Your task to perform on an android device: change keyboard looks Image 0: 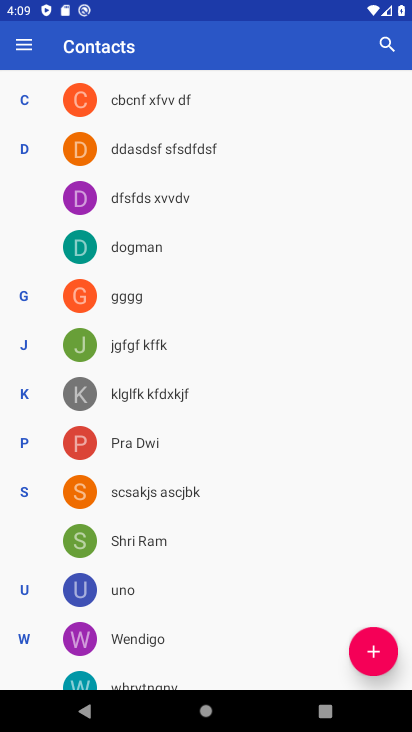
Step 0: press back button
Your task to perform on an android device: change keyboard looks Image 1: 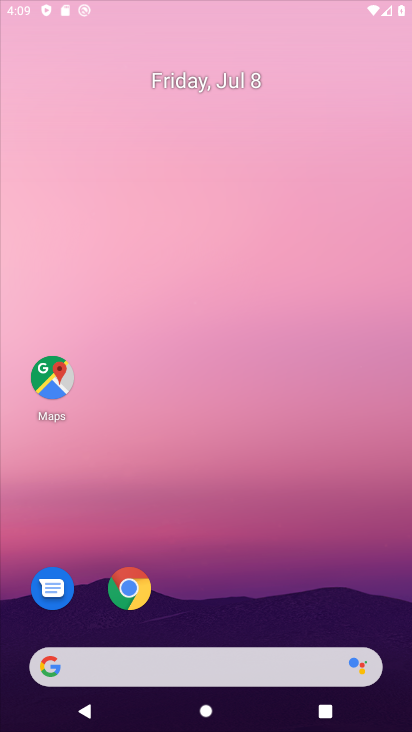
Step 1: press back button
Your task to perform on an android device: change keyboard looks Image 2: 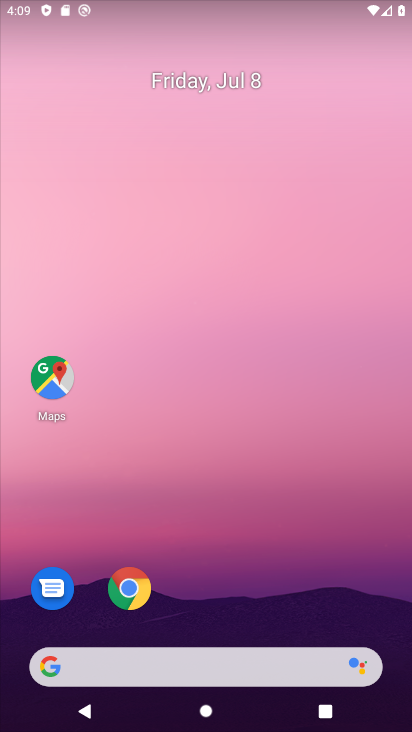
Step 2: click (82, 82)
Your task to perform on an android device: change keyboard looks Image 3: 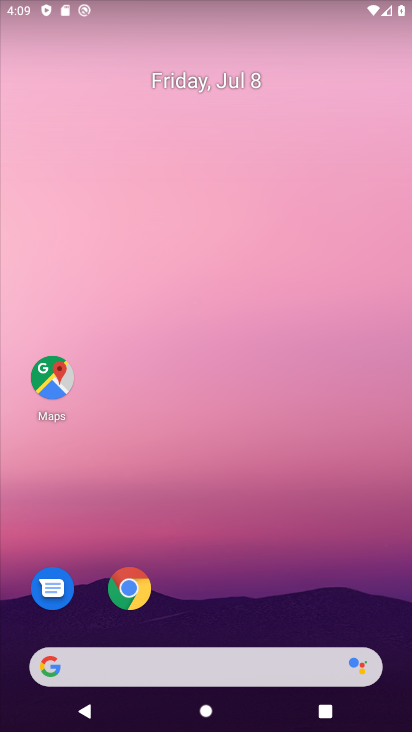
Step 3: drag from (248, 633) to (68, 5)
Your task to perform on an android device: change keyboard looks Image 4: 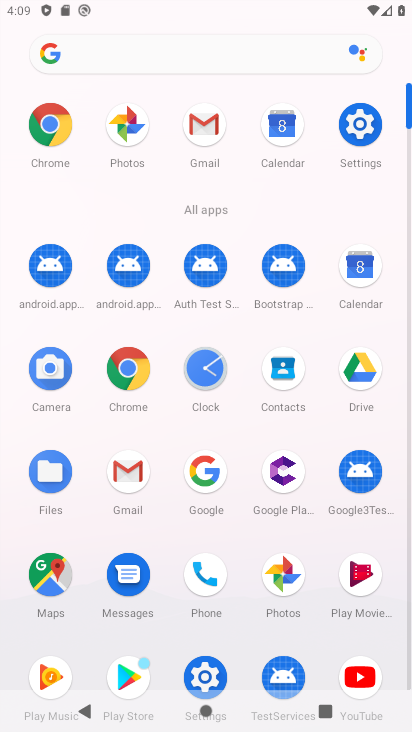
Step 4: click (355, 120)
Your task to perform on an android device: change keyboard looks Image 5: 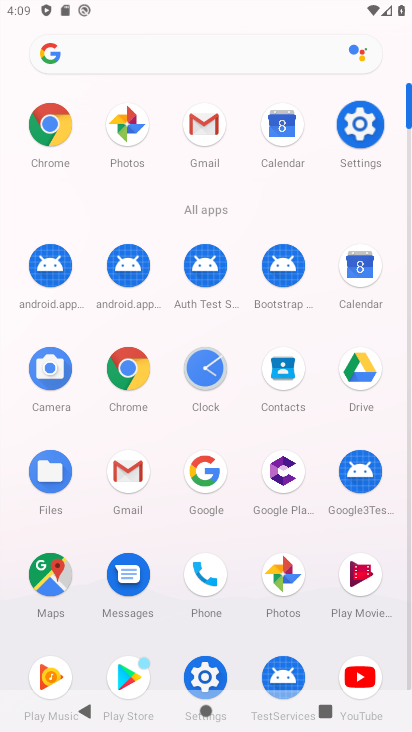
Step 5: click (358, 123)
Your task to perform on an android device: change keyboard looks Image 6: 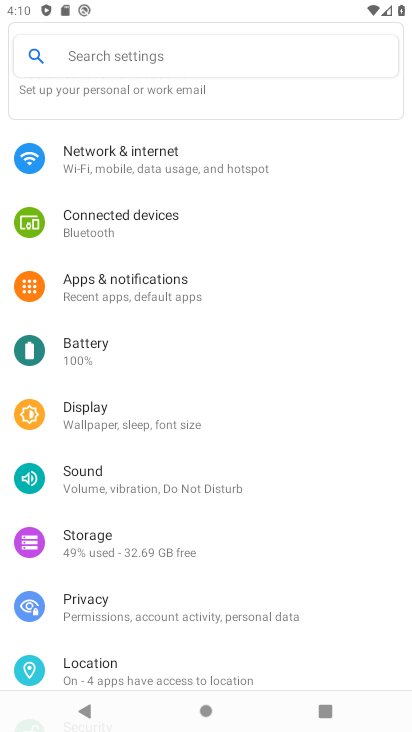
Step 6: press back button
Your task to perform on an android device: change keyboard looks Image 7: 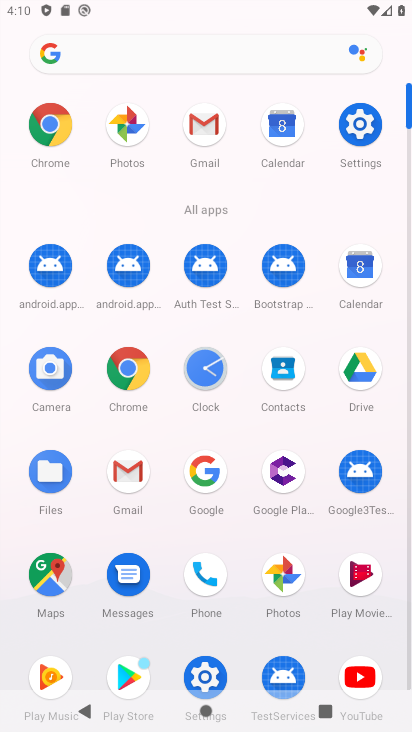
Step 7: click (205, 670)
Your task to perform on an android device: change keyboard looks Image 8: 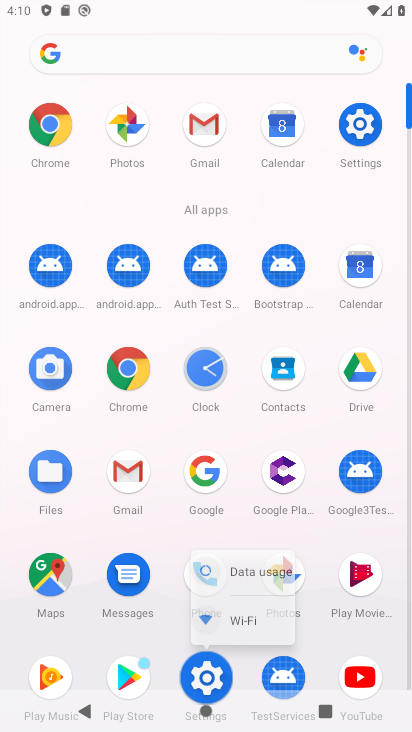
Step 8: click (228, 658)
Your task to perform on an android device: change keyboard looks Image 9: 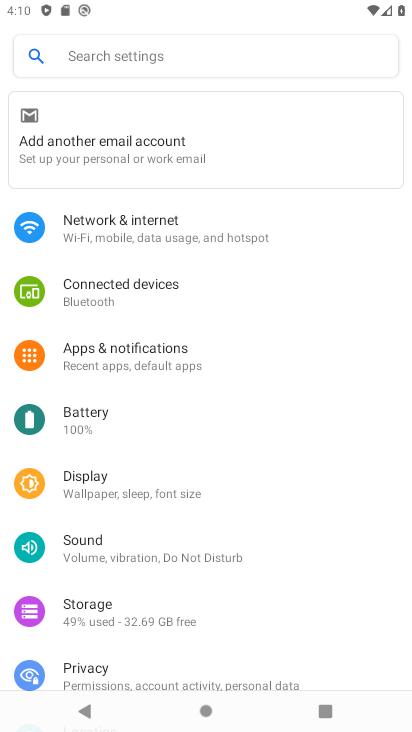
Step 9: drag from (146, 576) to (75, 89)
Your task to perform on an android device: change keyboard looks Image 10: 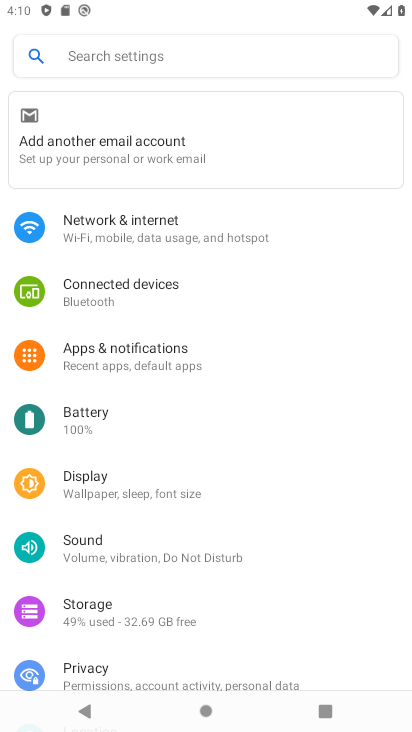
Step 10: drag from (178, 521) to (120, 42)
Your task to perform on an android device: change keyboard looks Image 11: 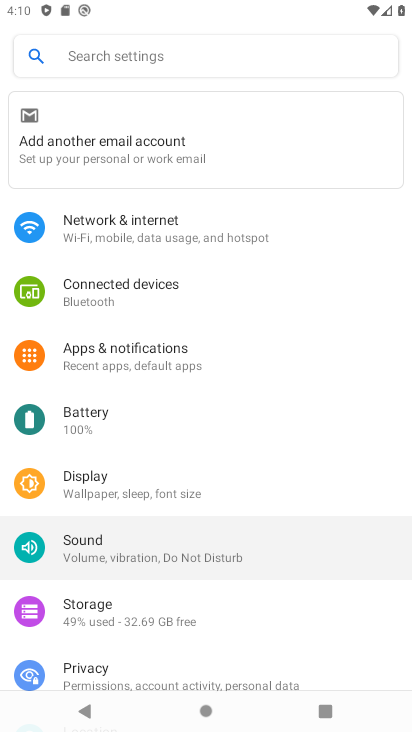
Step 11: drag from (214, 319) to (214, 105)
Your task to perform on an android device: change keyboard looks Image 12: 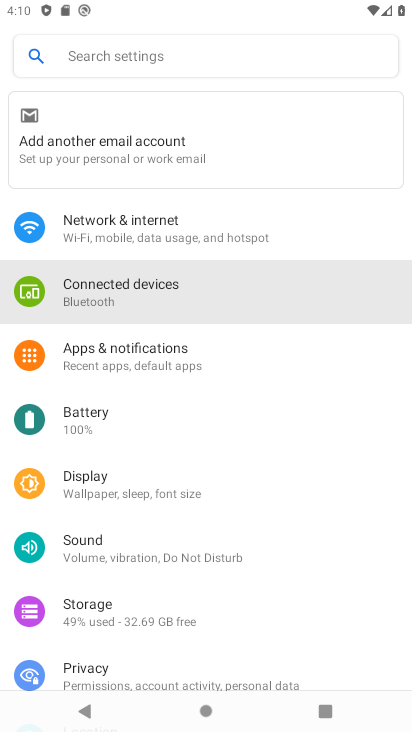
Step 12: click (189, 215)
Your task to perform on an android device: change keyboard looks Image 13: 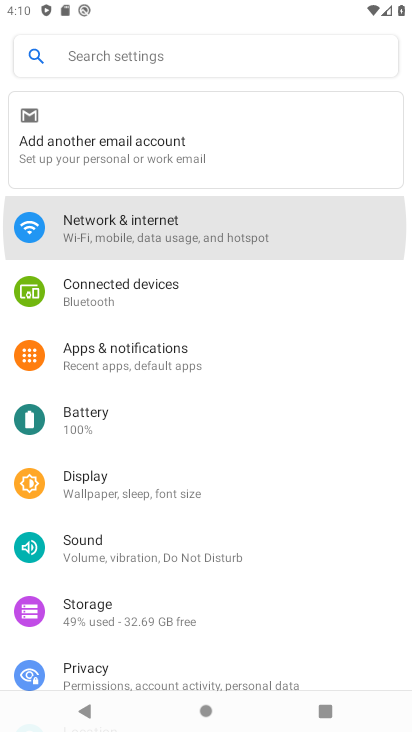
Step 13: drag from (120, 349) to (84, 204)
Your task to perform on an android device: change keyboard looks Image 14: 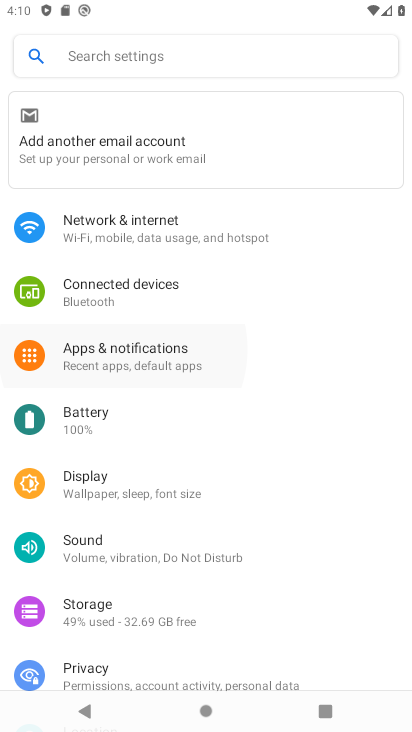
Step 14: drag from (90, 480) to (86, 303)
Your task to perform on an android device: change keyboard looks Image 15: 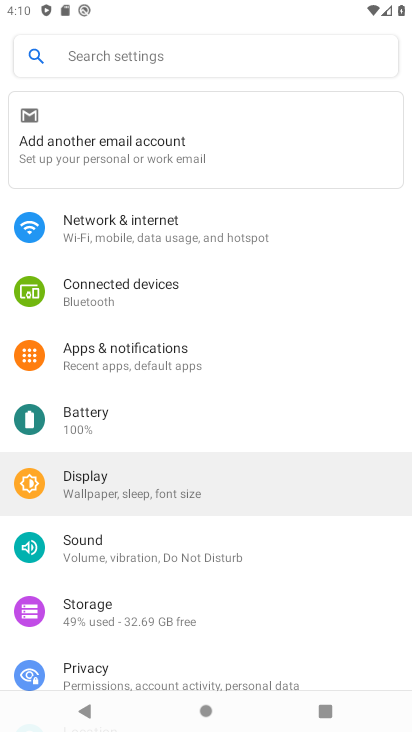
Step 15: drag from (180, 567) to (154, 331)
Your task to perform on an android device: change keyboard looks Image 16: 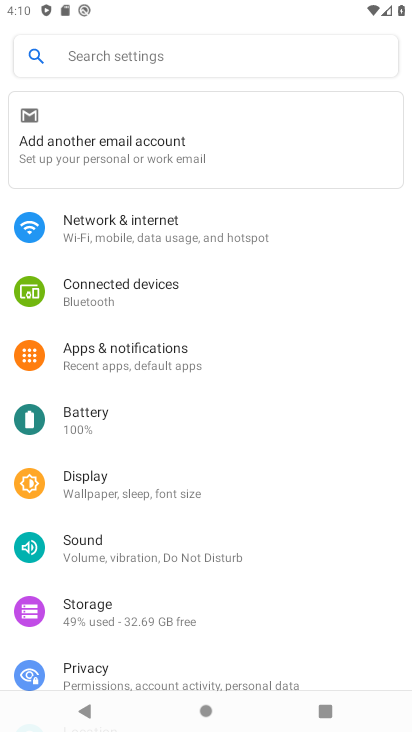
Step 16: drag from (112, 351) to (84, 80)
Your task to perform on an android device: change keyboard looks Image 17: 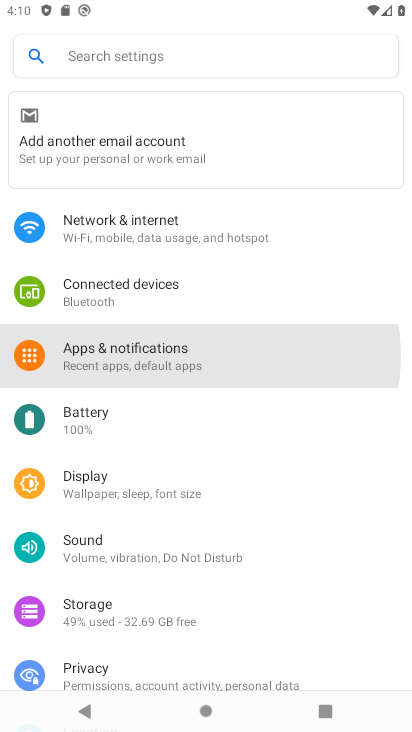
Step 17: drag from (126, 487) to (126, 143)
Your task to perform on an android device: change keyboard looks Image 18: 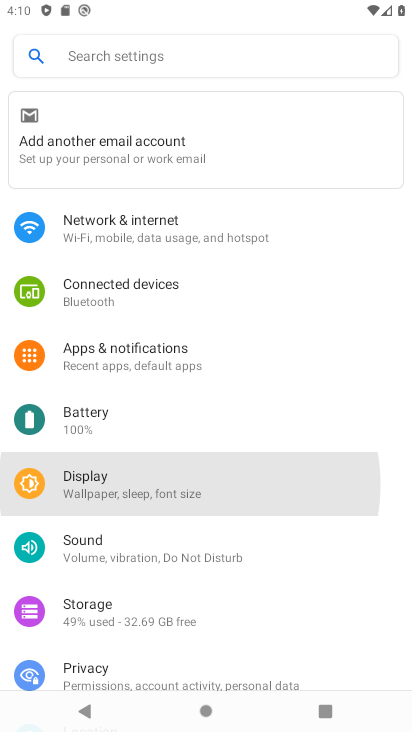
Step 18: drag from (194, 467) to (169, 154)
Your task to perform on an android device: change keyboard looks Image 19: 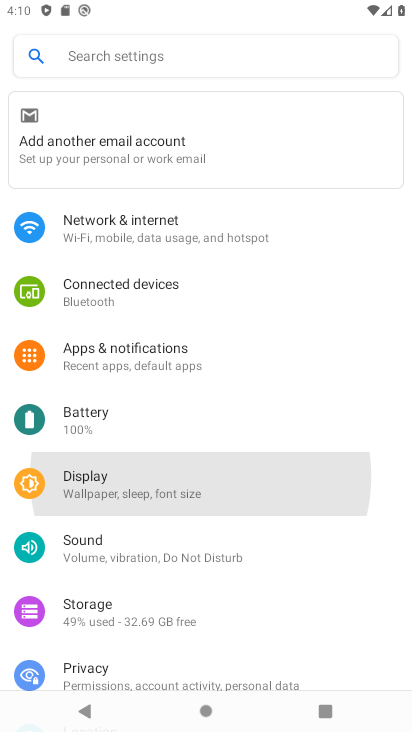
Step 19: drag from (150, 513) to (147, 3)
Your task to perform on an android device: change keyboard looks Image 20: 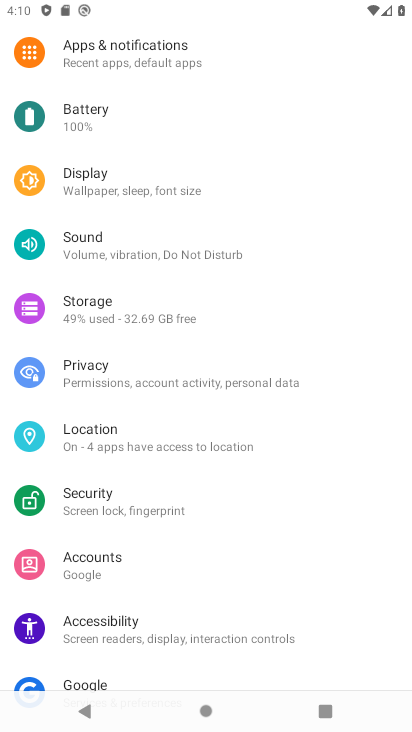
Step 20: drag from (138, 536) to (147, 23)
Your task to perform on an android device: change keyboard looks Image 21: 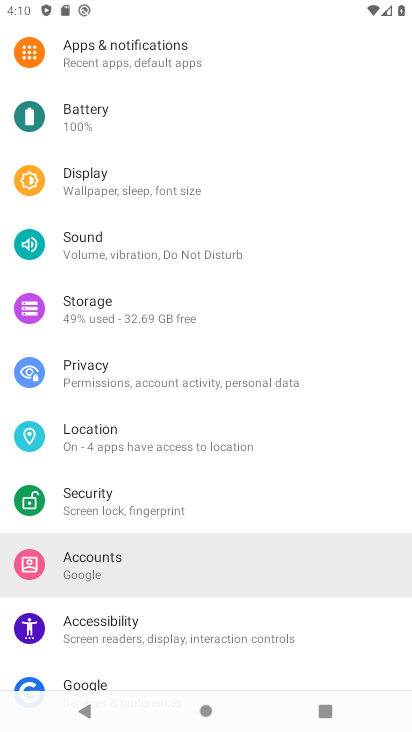
Step 21: drag from (183, 96) to (30, 128)
Your task to perform on an android device: change keyboard looks Image 22: 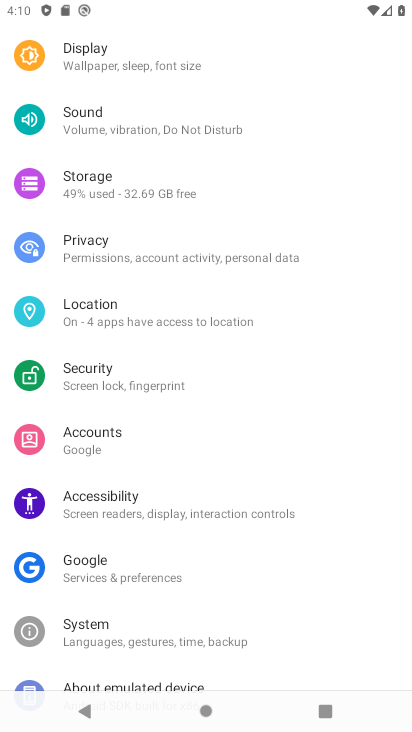
Step 22: click (120, 641)
Your task to perform on an android device: change keyboard looks Image 23: 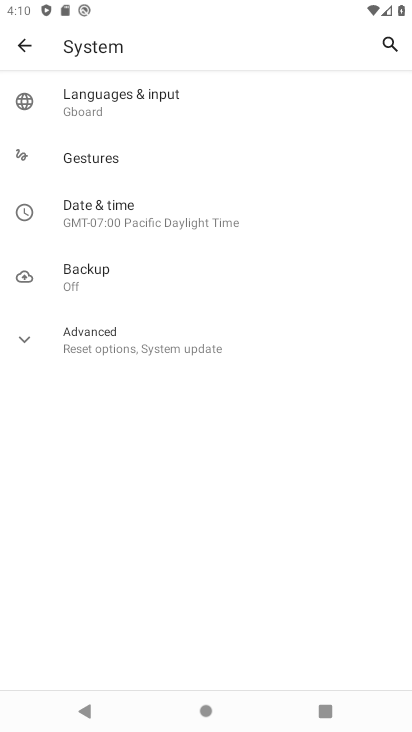
Step 23: click (22, 49)
Your task to perform on an android device: change keyboard looks Image 24: 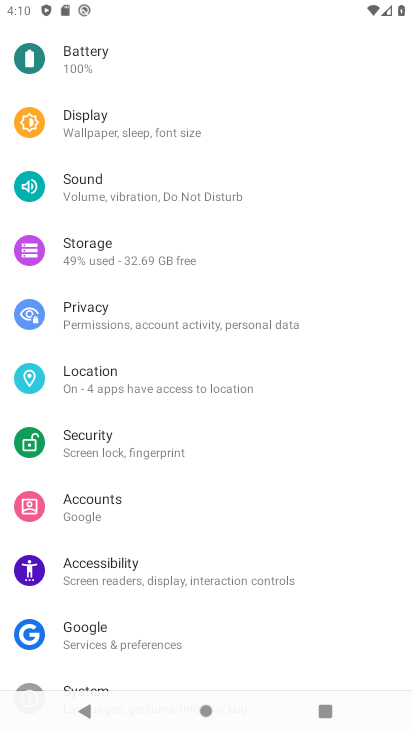
Step 24: drag from (137, 611) to (123, 185)
Your task to perform on an android device: change keyboard looks Image 25: 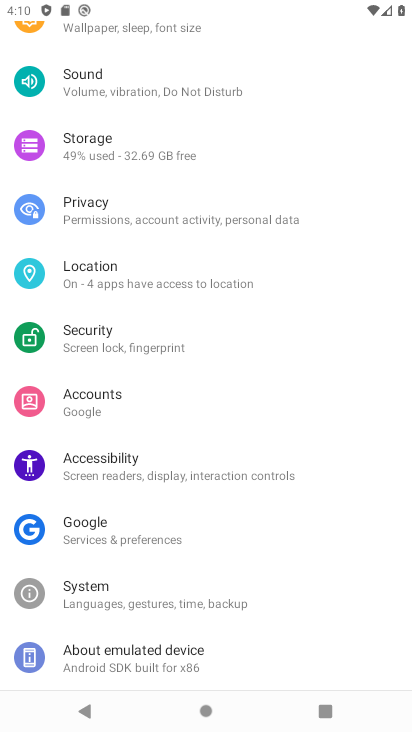
Step 25: click (172, 629)
Your task to perform on an android device: change keyboard looks Image 26: 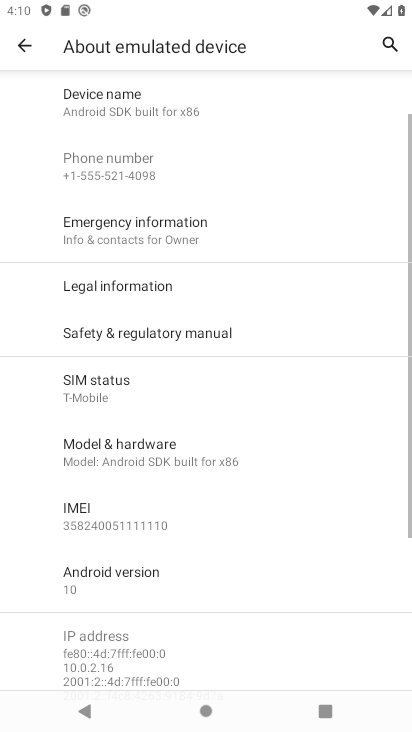
Step 26: click (28, 51)
Your task to perform on an android device: change keyboard looks Image 27: 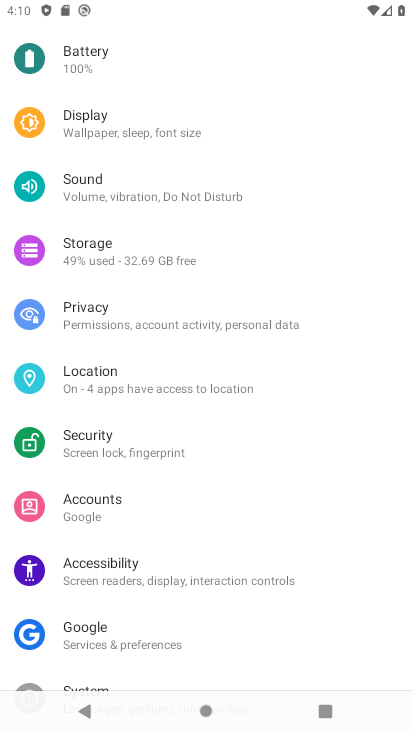
Step 27: drag from (233, 383) to (209, 6)
Your task to perform on an android device: change keyboard looks Image 28: 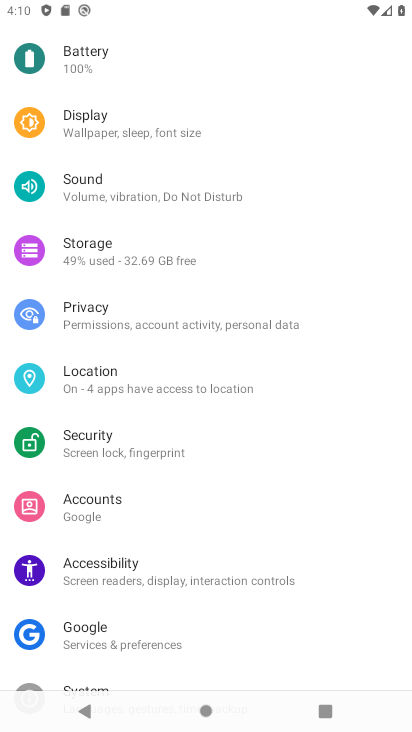
Step 28: drag from (140, 582) to (30, 138)
Your task to perform on an android device: change keyboard looks Image 29: 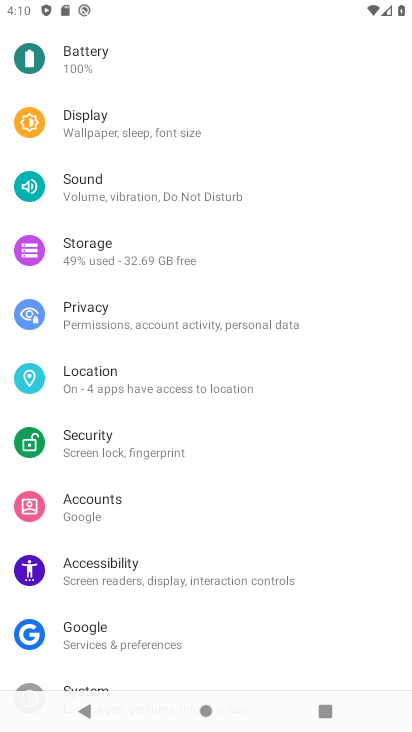
Step 29: drag from (182, 515) to (139, 119)
Your task to perform on an android device: change keyboard looks Image 30: 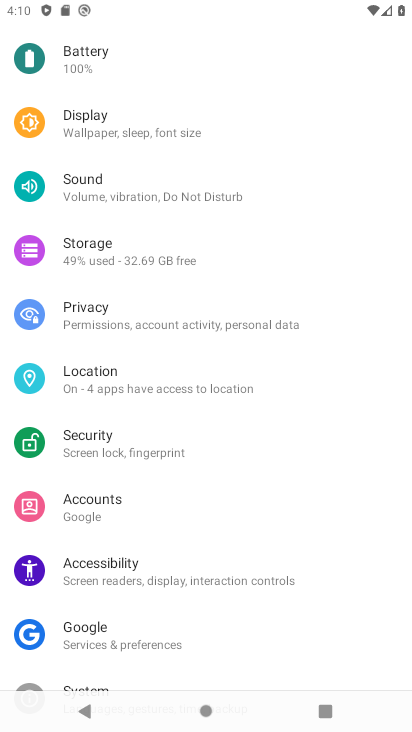
Step 30: drag from (268, 426) to (260, 128)
Your task to perform on an android device: change keyboard looks Image 31: 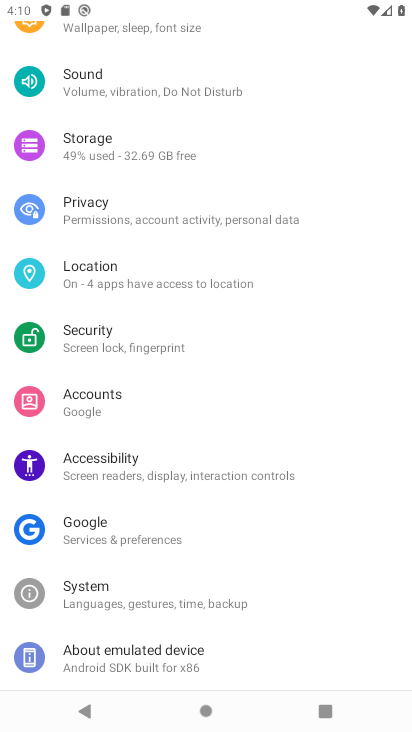
Step 31: click (84, 591)
Your task to perform on an android device: change keyboard looks Image 32: 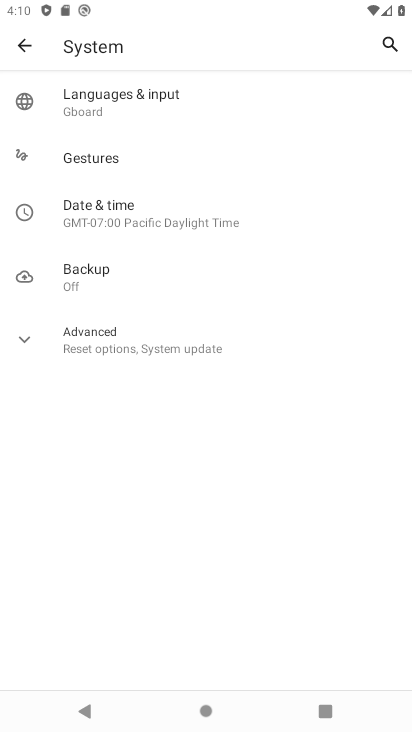
Step 32: click (82, 118)
Your task to perform on an android device: change keyboard looks Image 33: 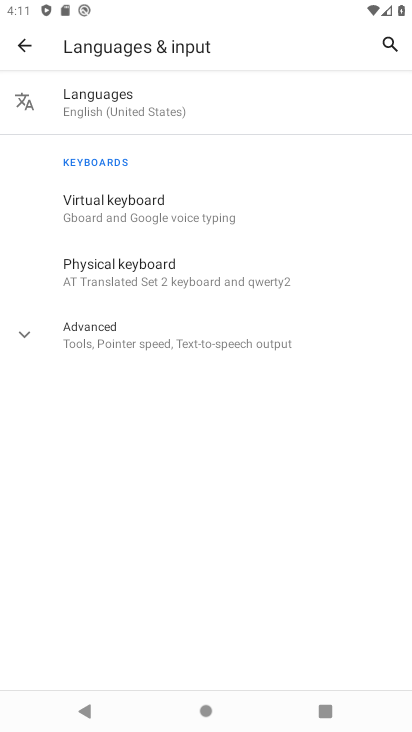
Step 33: click (121, 219)
Your task to perform on an android device: change keyboard looks Image 34: 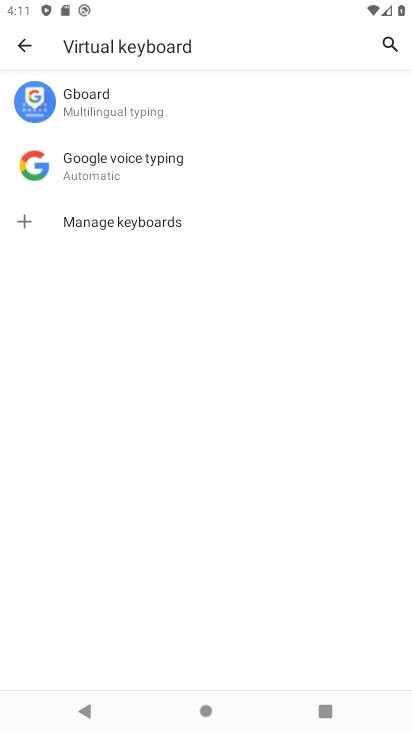
Step 34: click (100, 162)
Your task to perform on an android device: change keyboard looks Image 35: 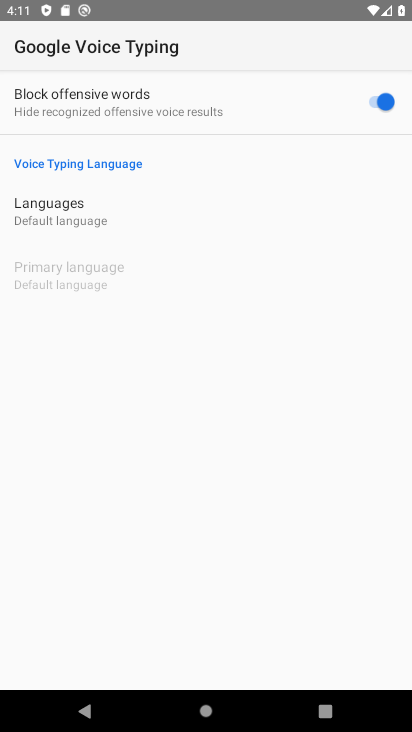
Step 35: task complete